Your task to perform on an android device: Go to Google Image 0: 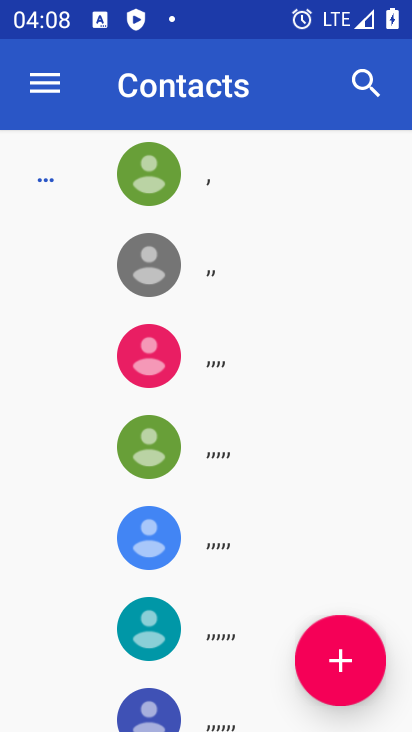
Step 0: press home button
Your task to perform on an android device: Go to Google Image 1: 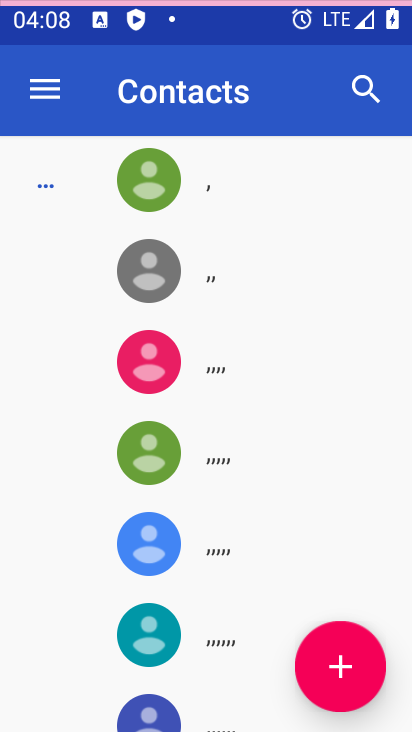
Step 1: press home button
Your task to perform on an android device: Go to Google Image 2: 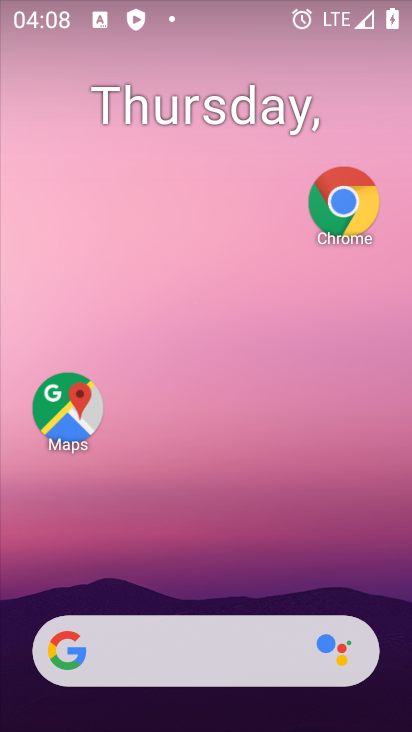
Step 2: drag from (296, 571) to (315, 15)
Your task to perform on an android device: Go to Google Image 3: 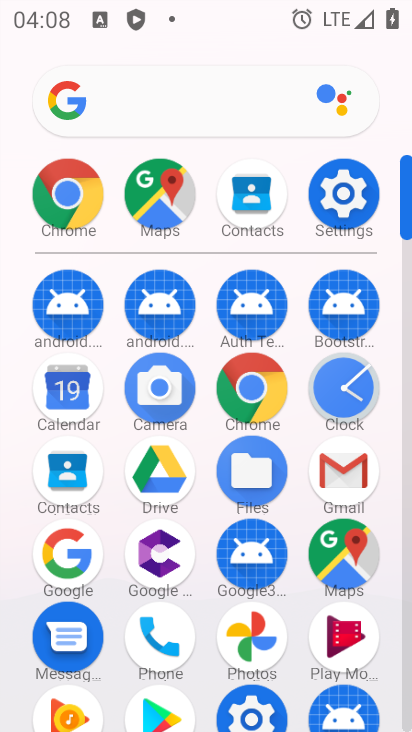
Step 3: click (259, 391)
Your task to perform on an android device: Go to Google Image 4: 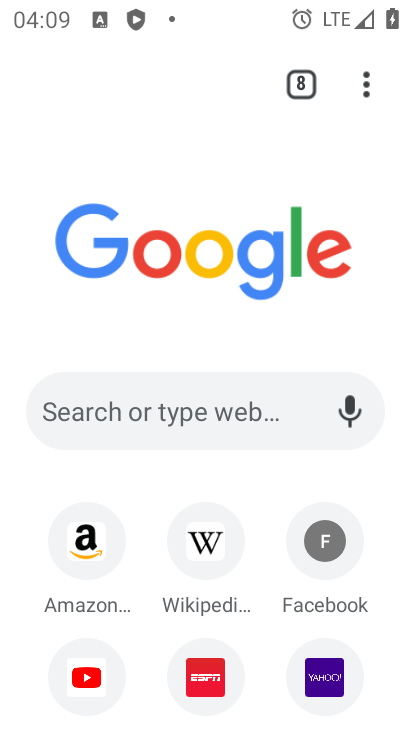
Step 4: task complete